Your task to perform on an android device: Open calendar and show me the first week of next month Image 0: 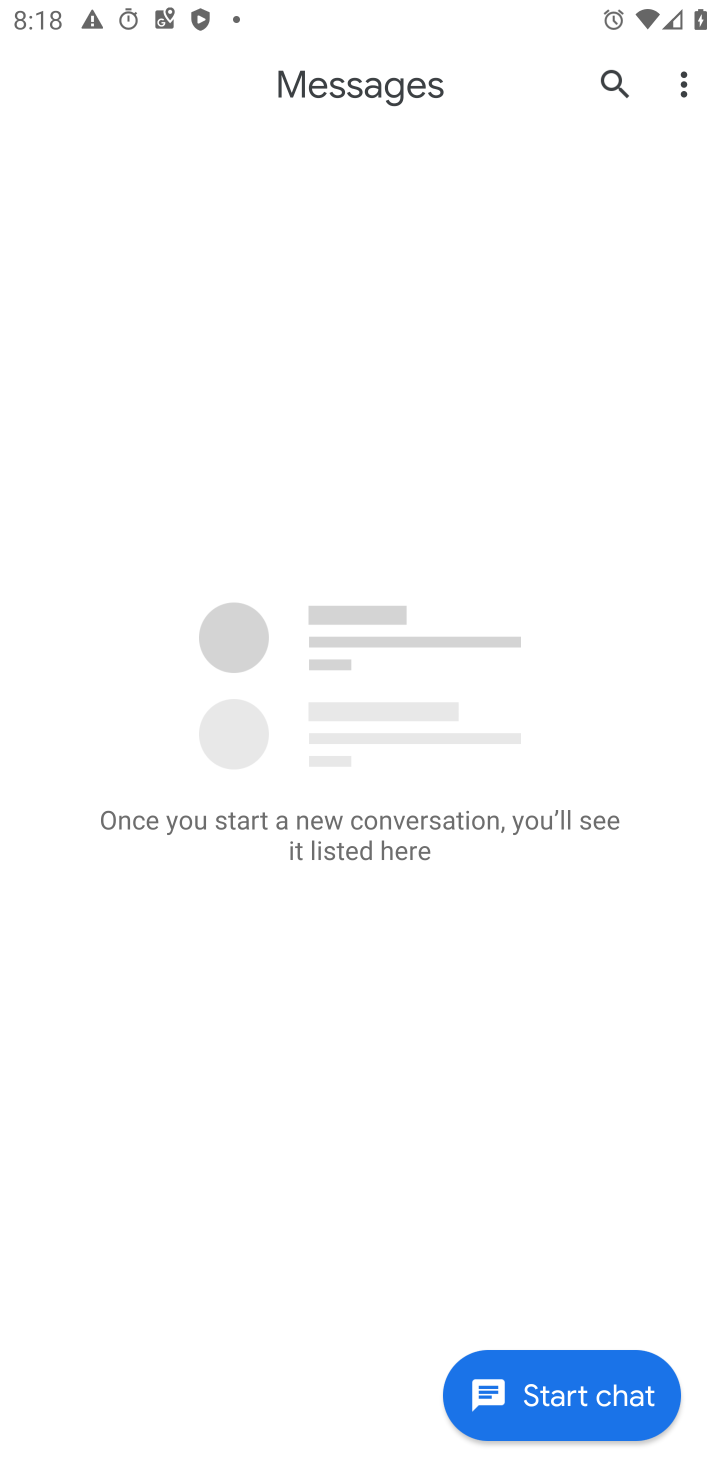
Step 0: drag from (436, 978) to (494, 545)
Your task to perform on an android device: Open calendar and show me the first week of next month Image 1: 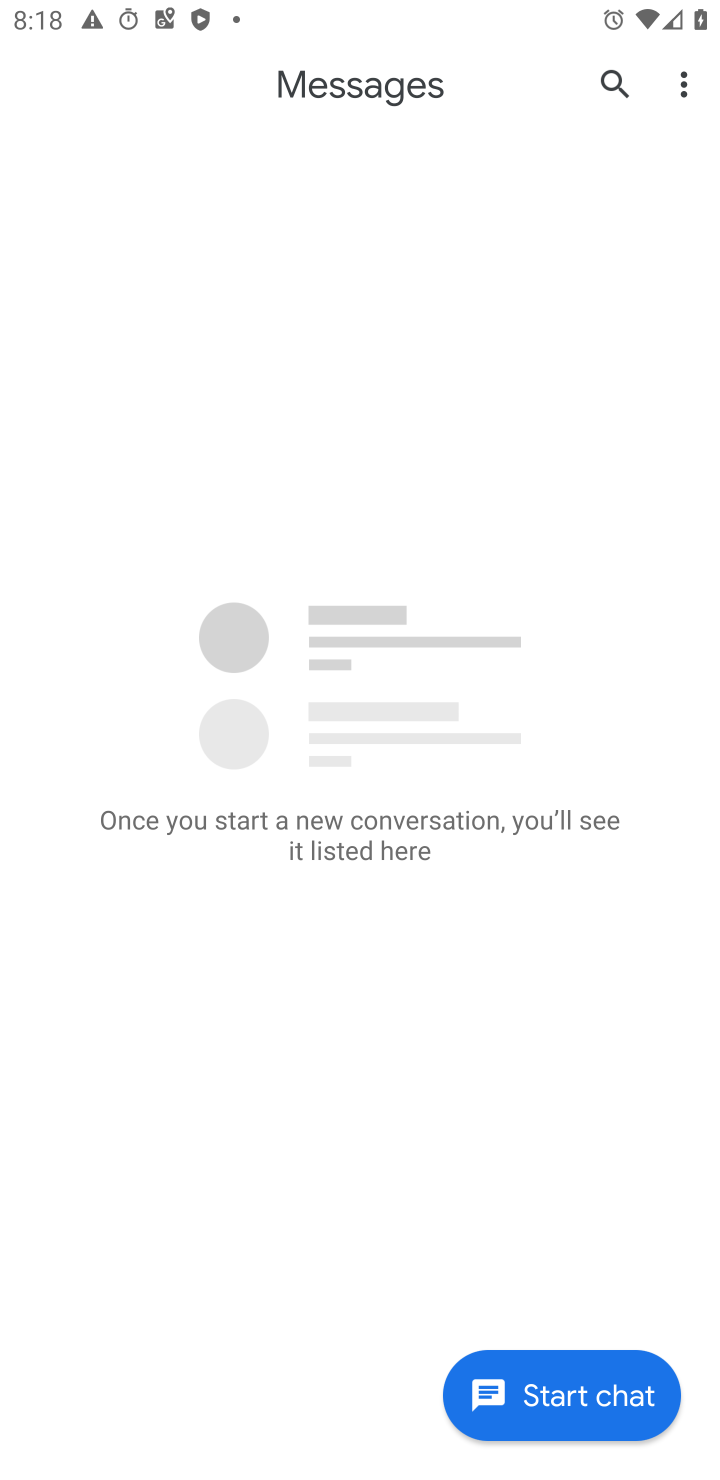
Step 1: press home button
Your task to perform on an android device: Open calendar and show me the first week of next month Image 2: 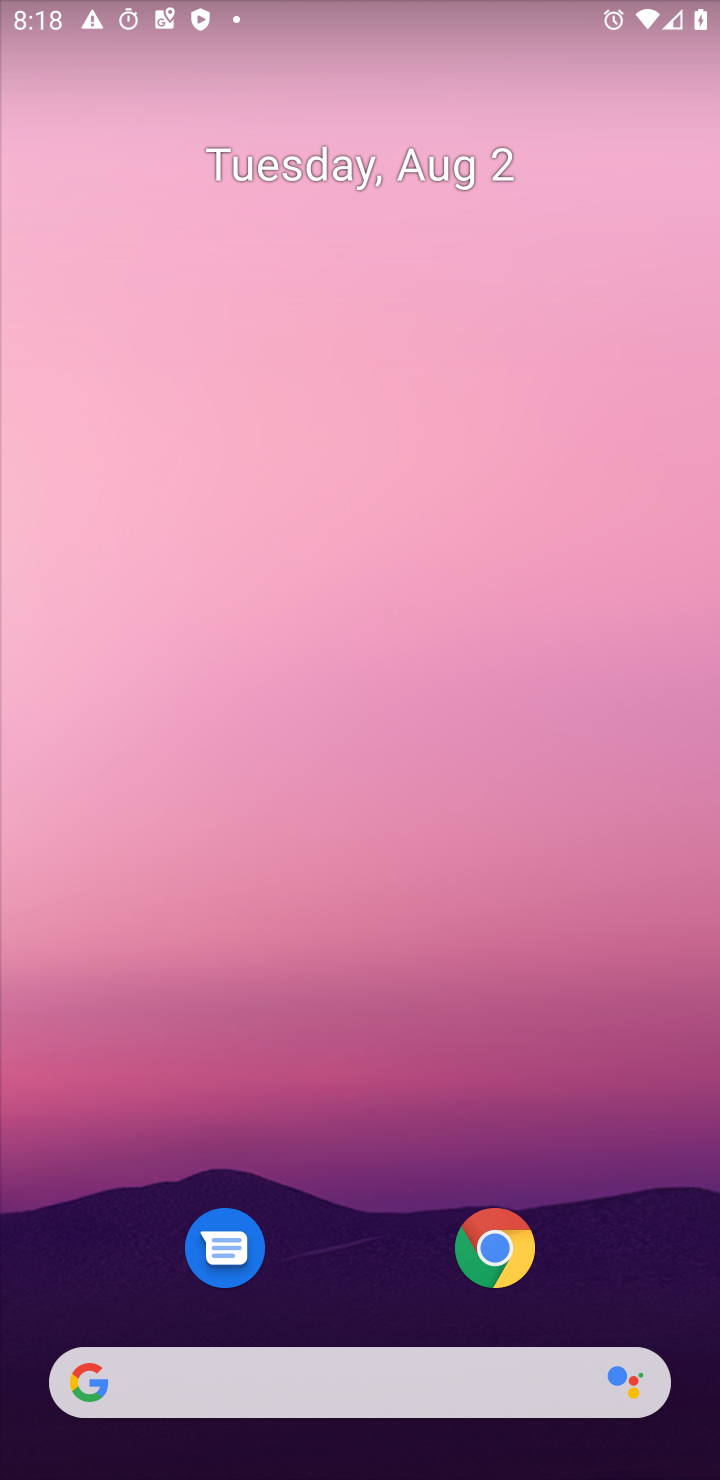
Step 2: drag from (300, 1296) to (433, 324)
Your task to perform on an android device: Open calendar and show me the first week of next month Image 3: 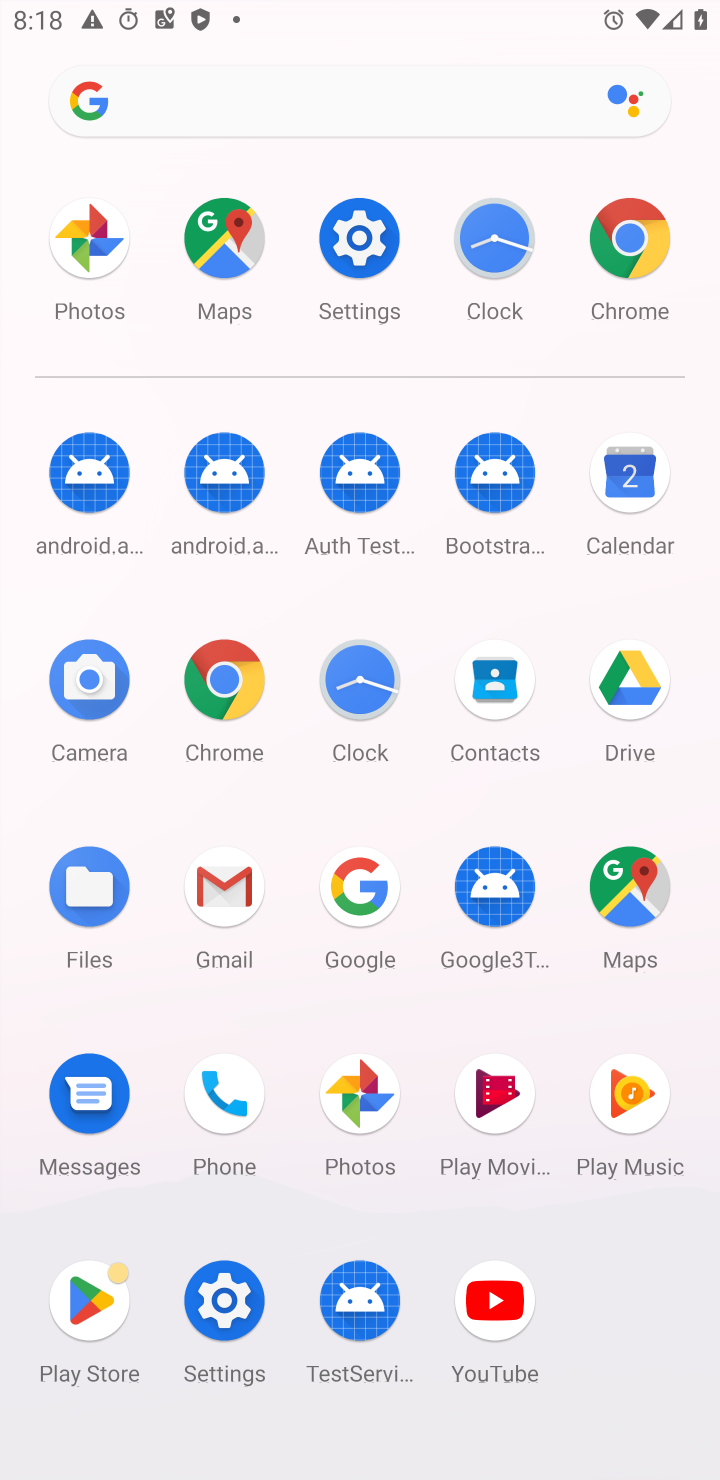
Step 3: click (635, 461)
Your task to perform on an android device: Open calendar and show me the first week of next month Image 4: 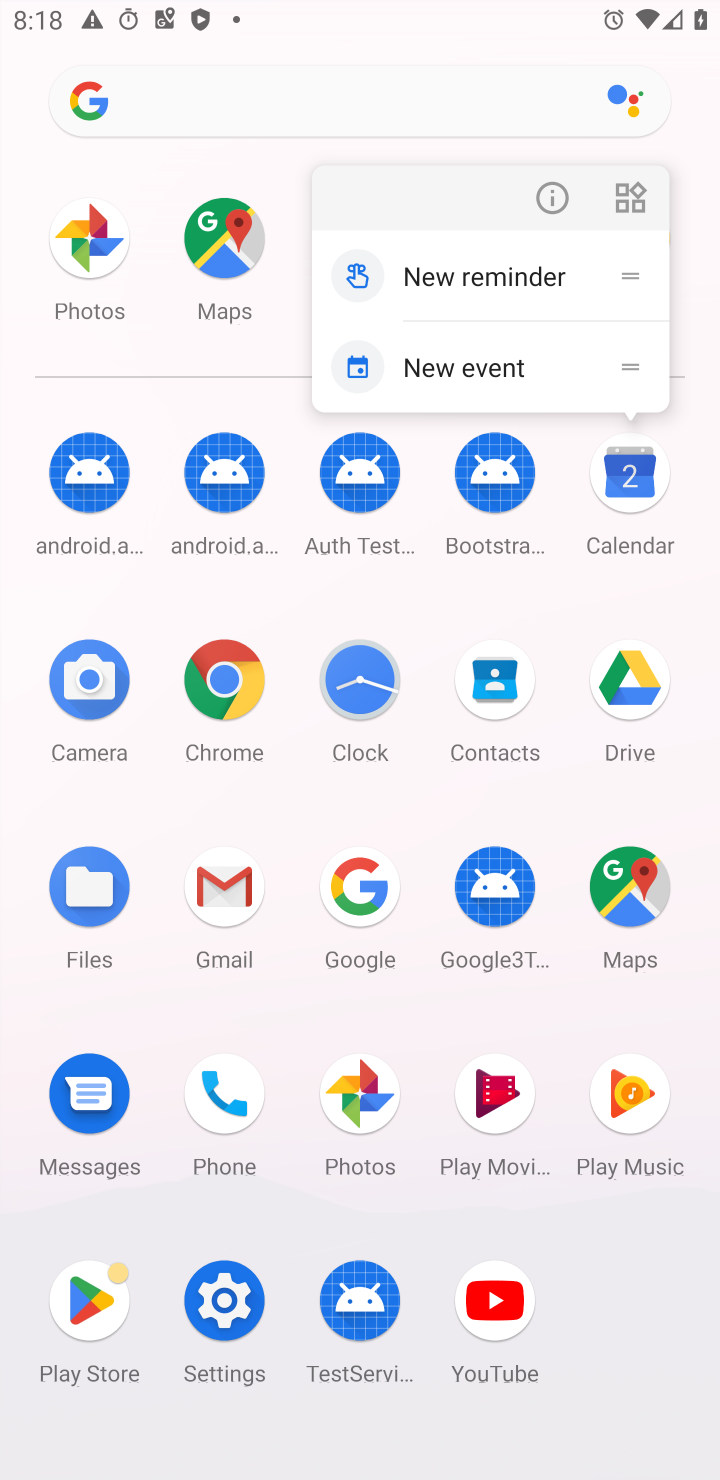
Step 4: click (547, 197)
Your task to perform on an android device: Open calendar and show me the first week of next month Image 5: 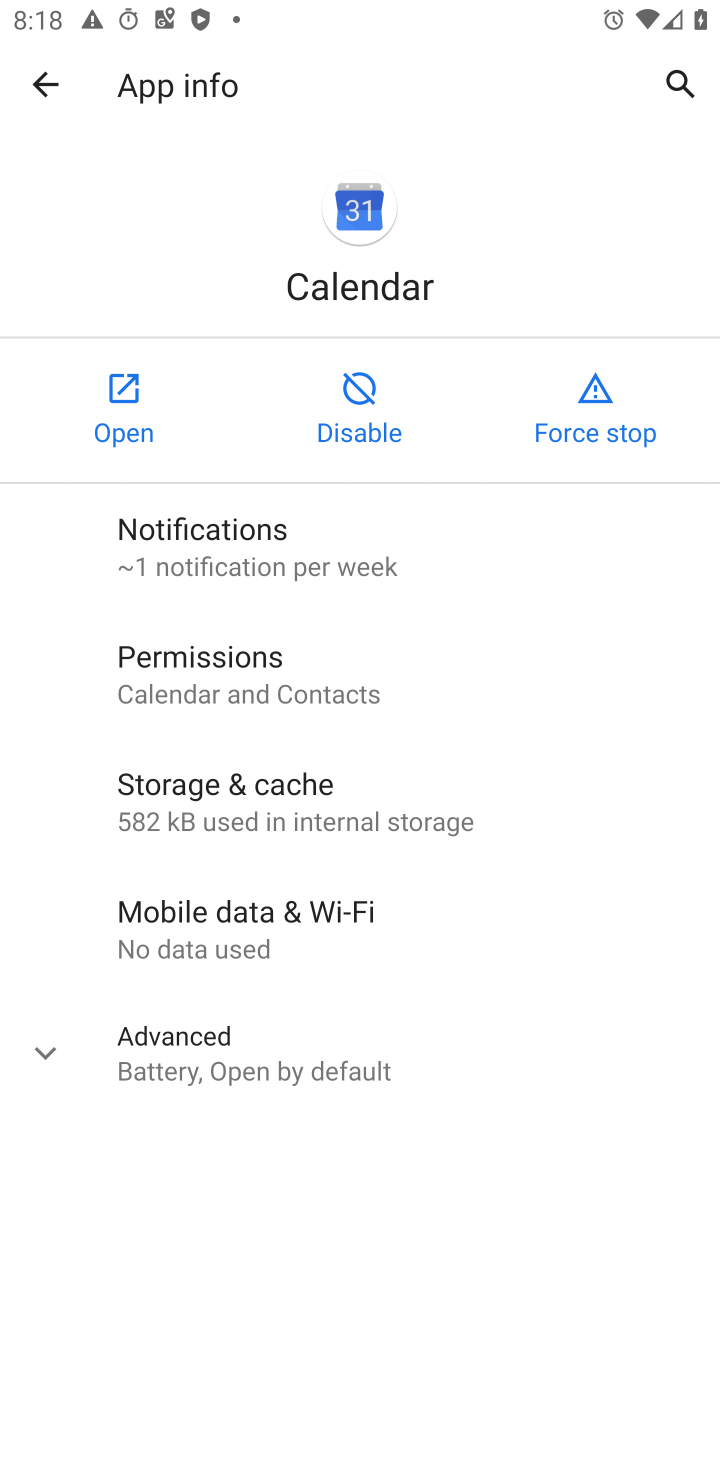
Step 5: click (131, 382)
Your task to perform on an android device: Open calendar and show me the first week of next month Image 6: 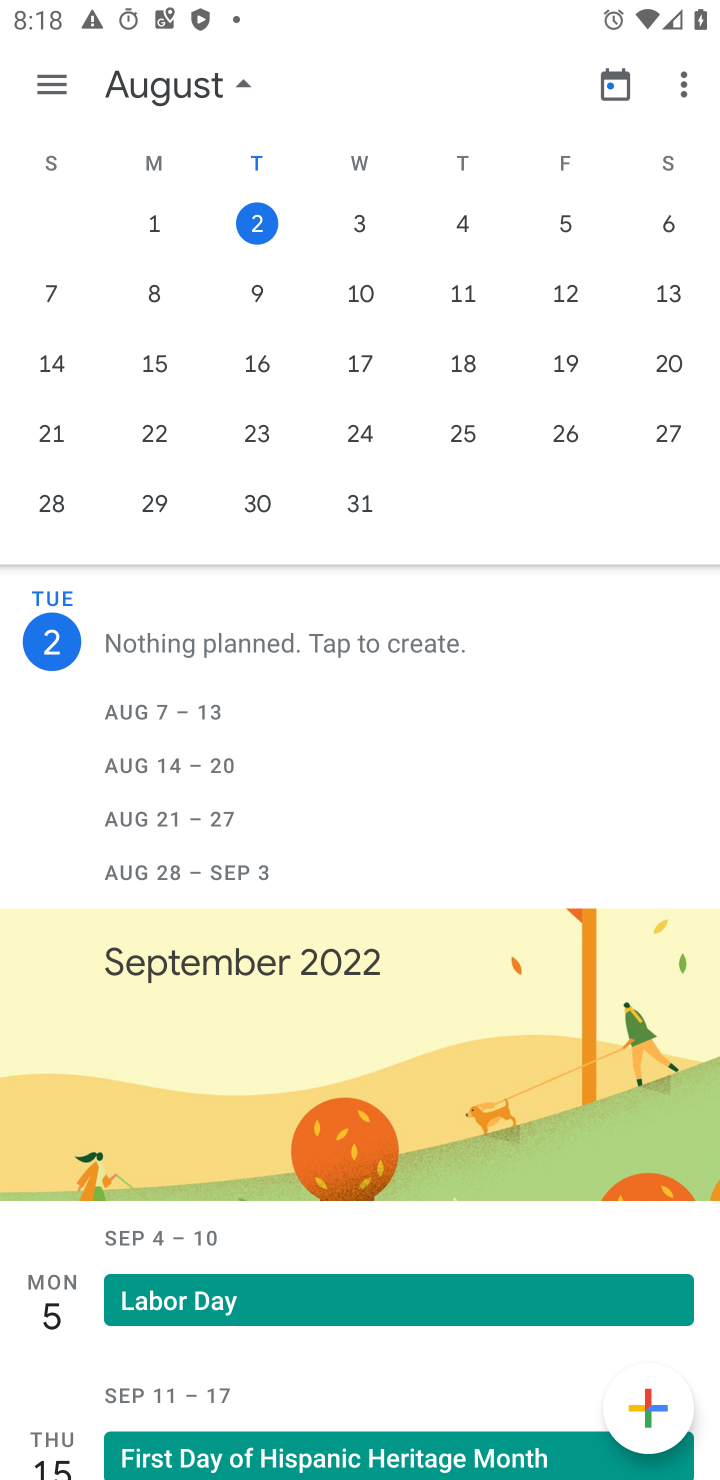
Step 6: drag from (652, 424) to (11, 391)
Your task to perform on an android device: Open calendar and show me the first week of next month Image 7: 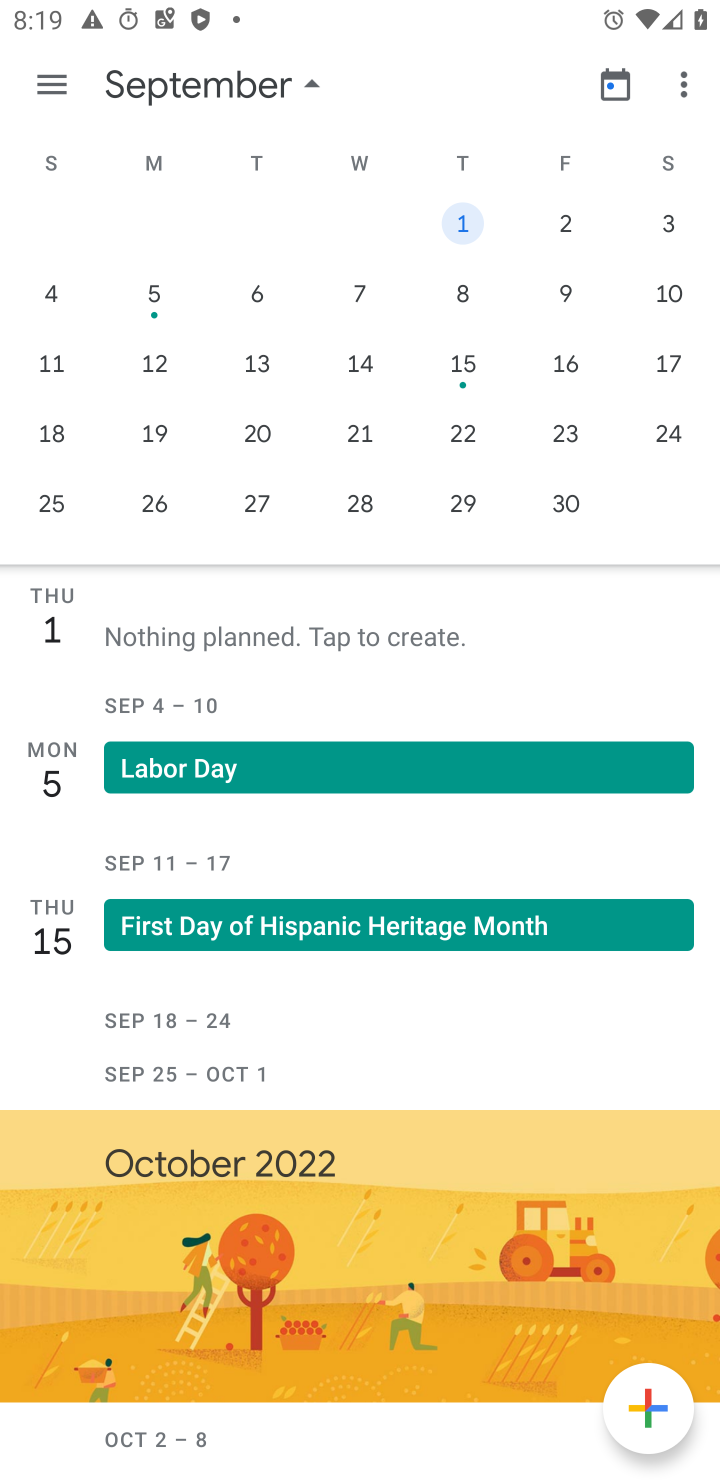
Step 7: click (565, 224)
Your task to perform on an android device: Open calendar and show me the first week of next month Image 8: 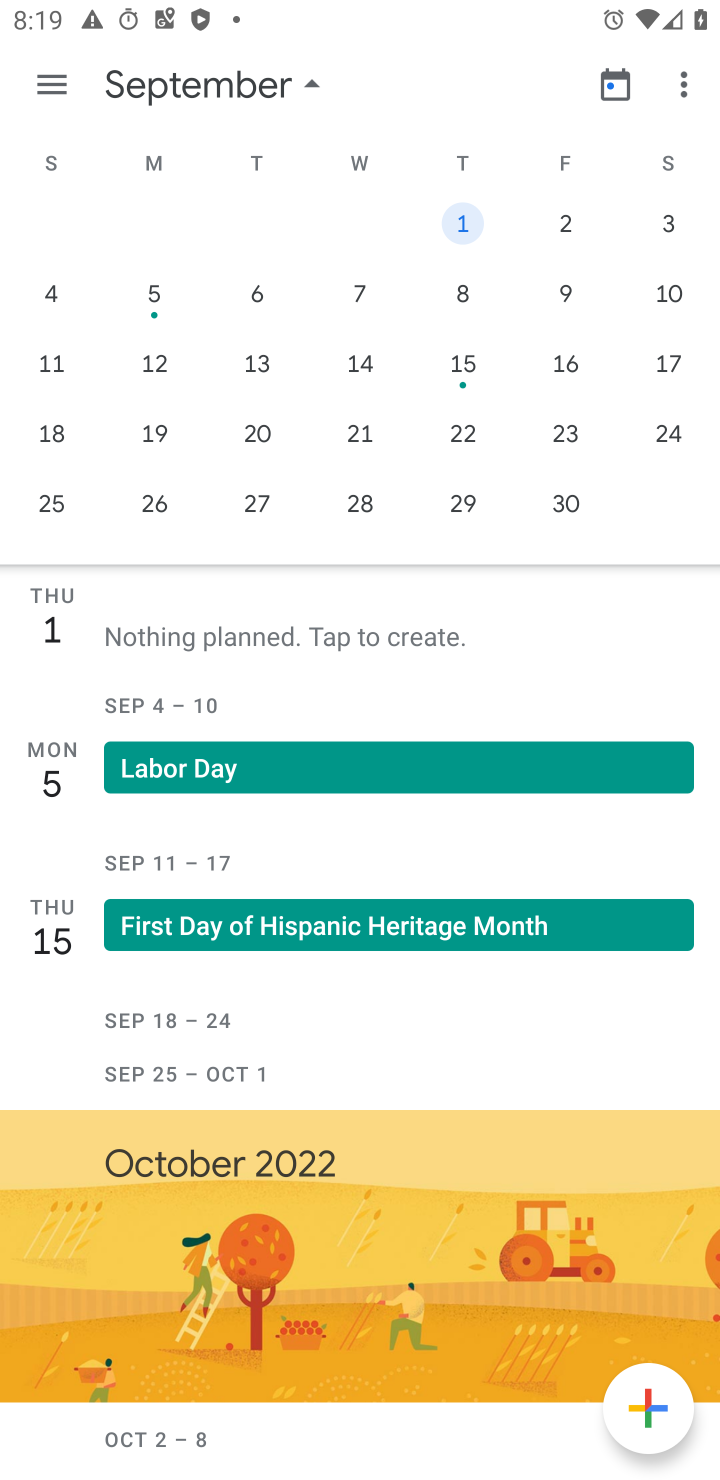
Step 8: click (563, 218)
Your task to perform on an android device: Open calendar and show me the first week of next month Image 9: 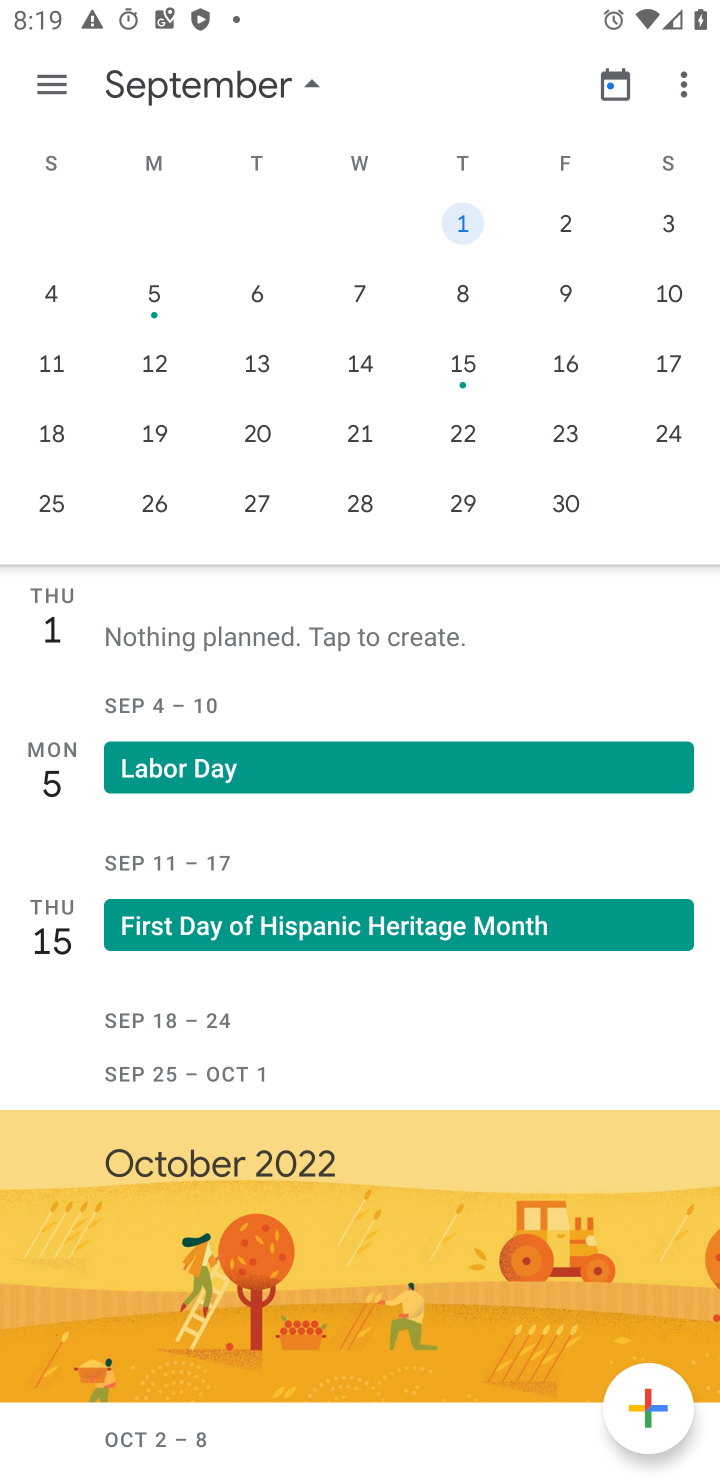
Step 9: click (565, 218)
Your task to perform on an android device: Open calendar and show me the first week of next month Image 10: 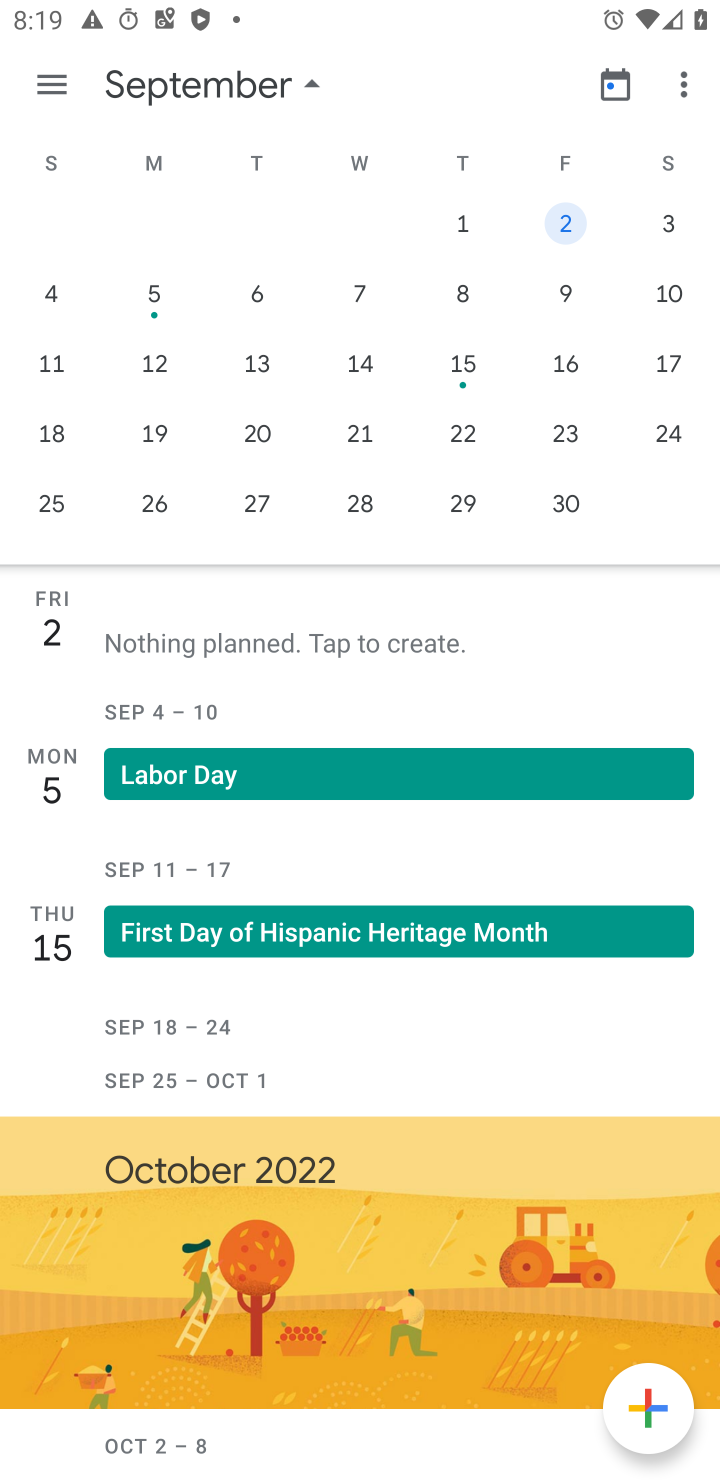
Step 10: click (563, 220)
Your task to perform on an android device: Open calendar and show me the first week of next month Image 11: 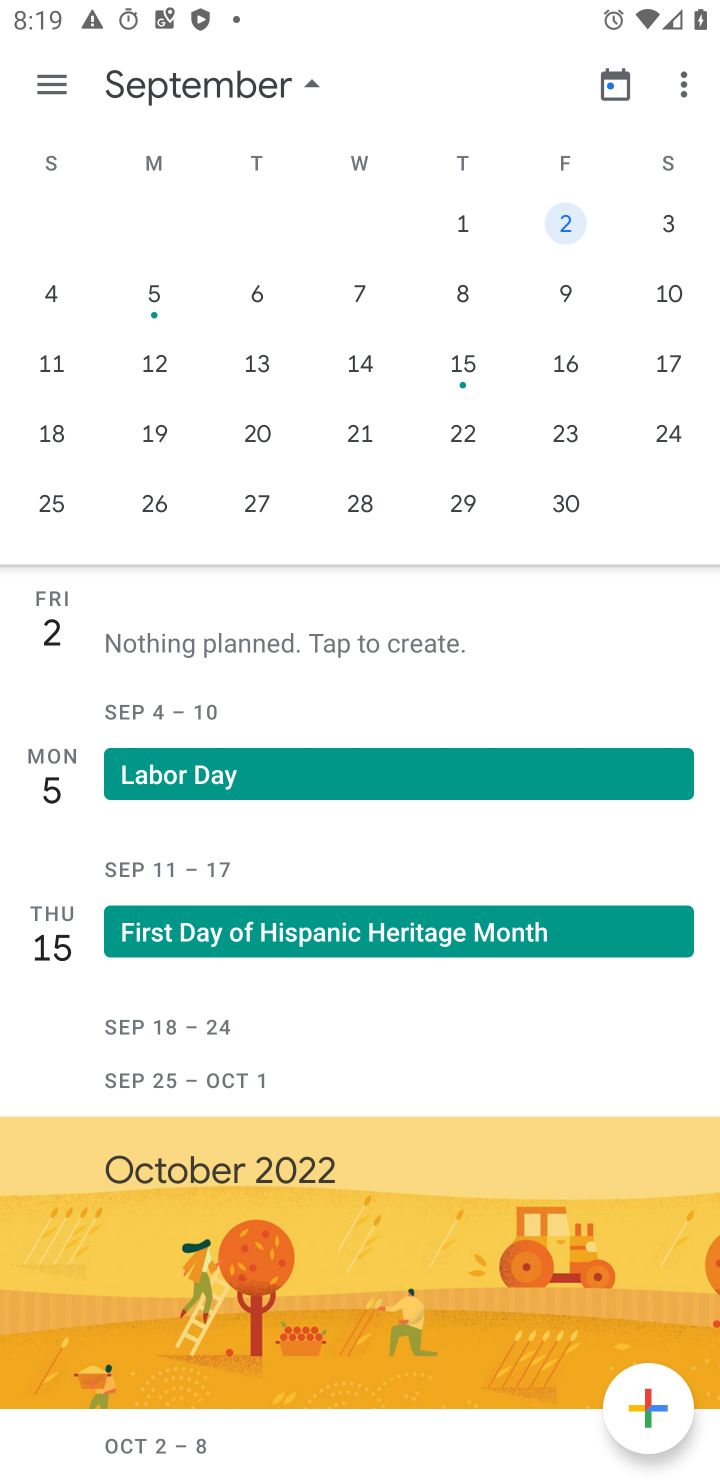
Step 11: task complete